Your task to perform on an android device: delete a single message in the gmail app Image 0: 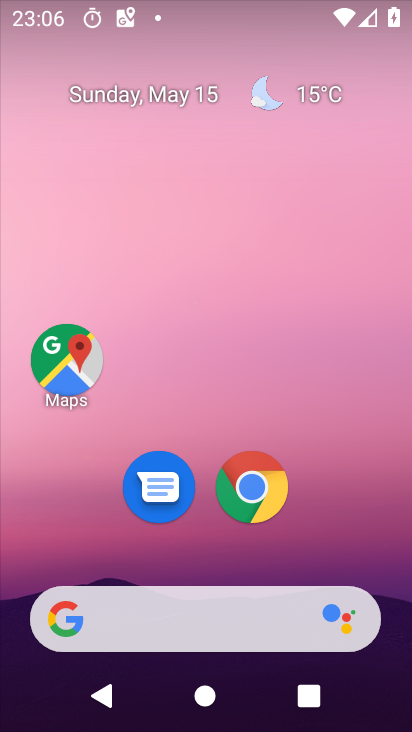
Step 0: click (249, 480)
Your task to perform on an android device: delete a single message in the gmail app Image 1: 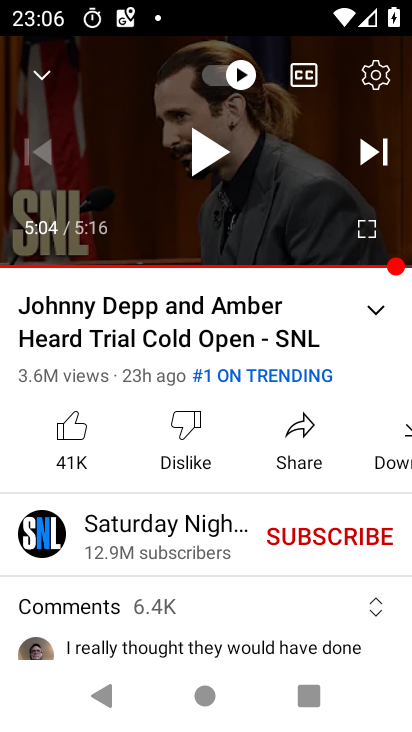
Step 1: press back button
Your task to perform on an android device: delete a single message in the gmail app Image 2: 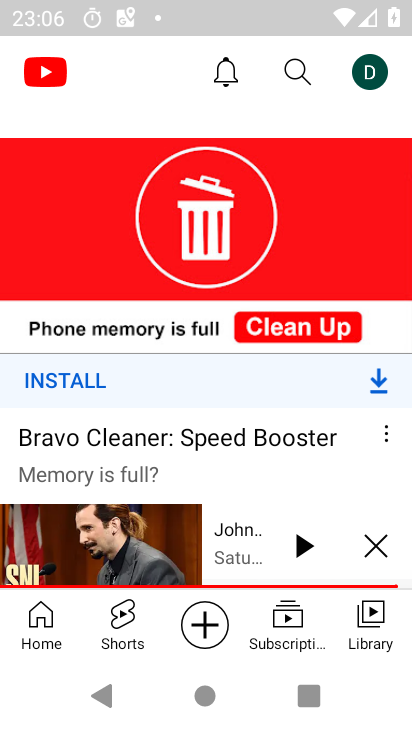
Step 2: click (375, 544)
Your task to perform on an android device: delete a single message in the gmail app Image 3: 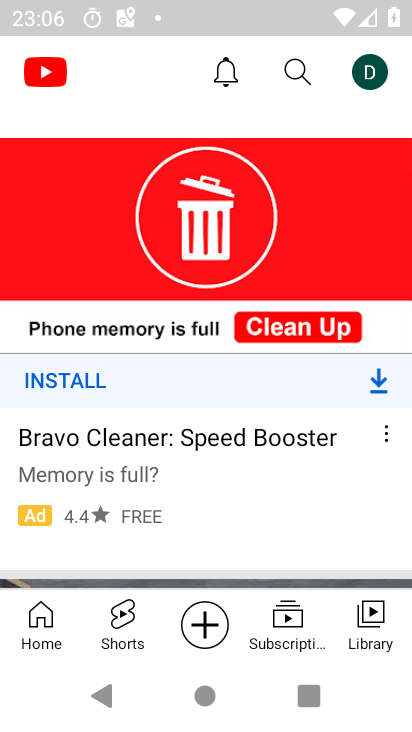
Step 3: press back button
Your task to perform on an android device: delete a single message in the gmail app Image 4: 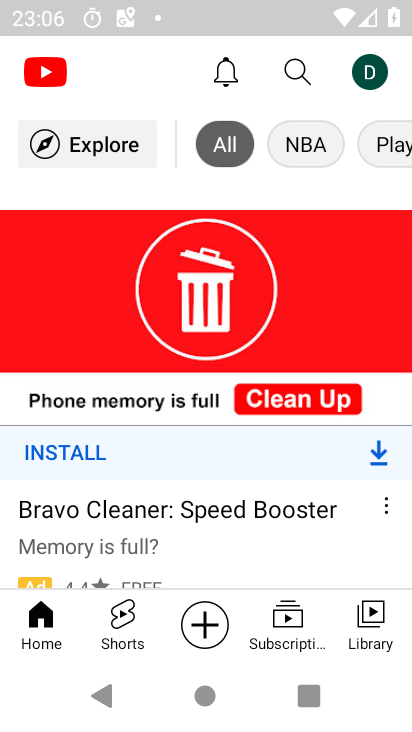
Step 4: press home button
Your task to perform on an android device: delete a single message in the gmail app Image 5: 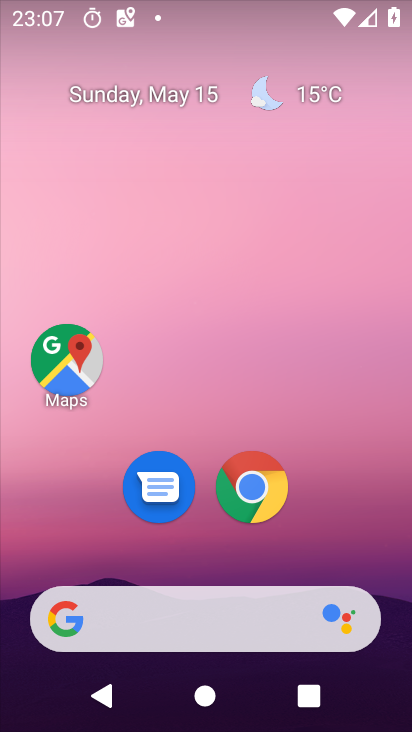
Step 5: click (356, 303)
Your task to perform on an android device: delete a single message in the gmail app Image 6: 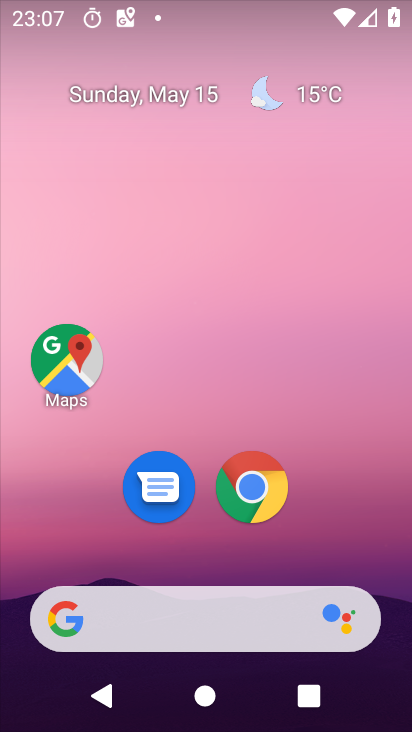
Step 6: drag from (386, 625) to (364, 401)
Your task to perform on an android device: delete a single message in the gmail app Image 7: 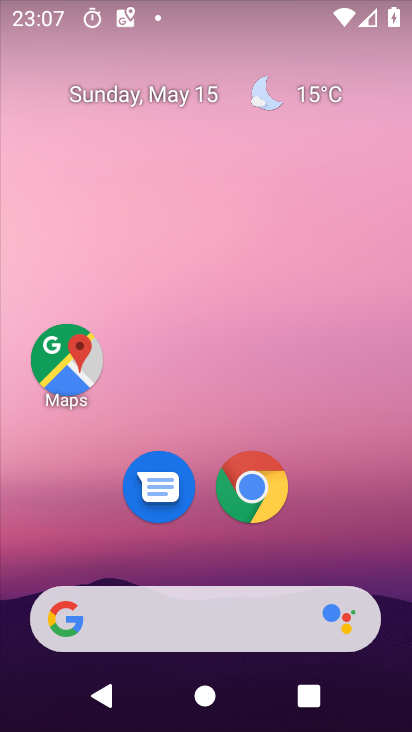
Step 7: drag from (400, 645) to (341, 307)
Your task to perform on an android device: delete a single message in the gmail app Image 8: 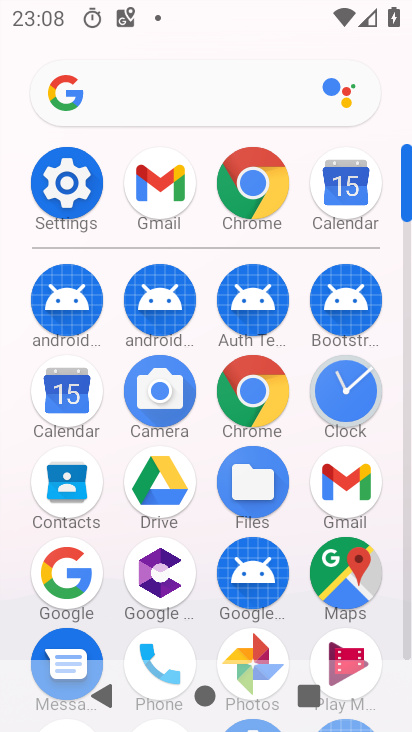
Step 8: click (349, 482)
Your task to perform on an android device: delete a single message in the gmail app Image 9: 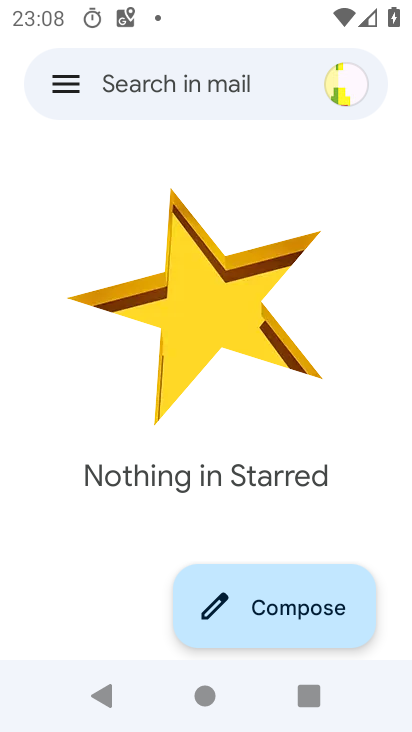
Step 9: click (60, 74)
Your task to perform on an android device: delete a single message in the gmail app Image 10: 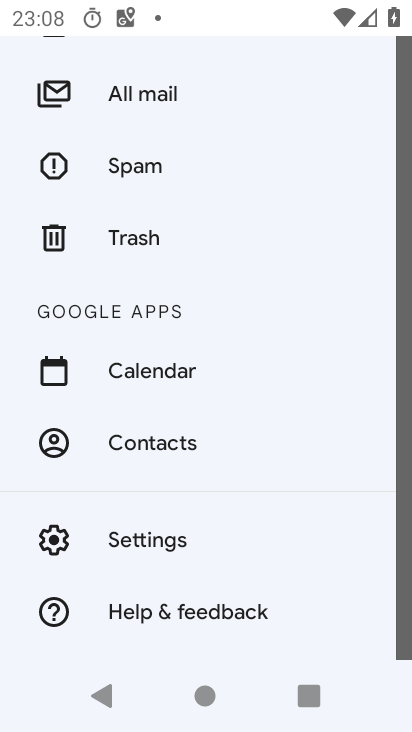
Step 10: drag from (303, 149) to (341, 453)
Your task to perform on an android device: delete a single message in the gmail app Image 11: 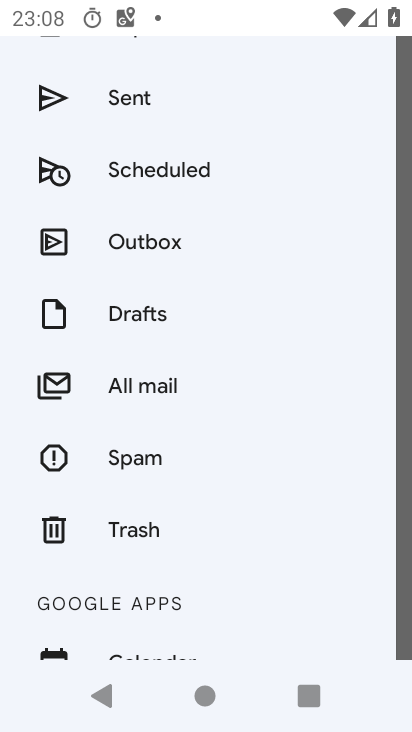
Step 11: drag from (323, 220) to (347, 348)
Your task to perform on an android device: delete a single message in the gmail app Image 12: 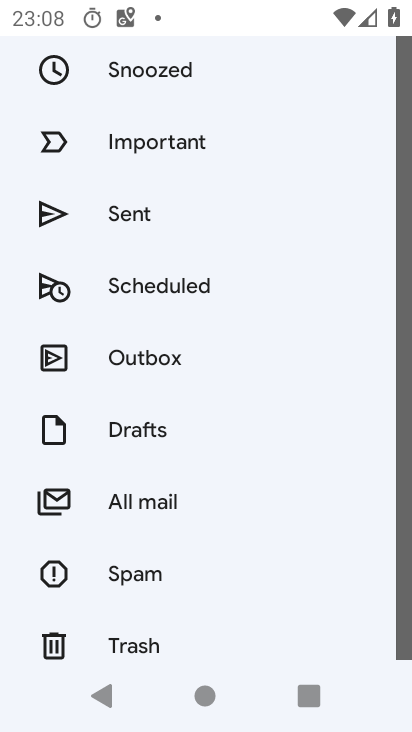
Step 12: drag from (295, 101) to (305, 409)
Your task to perform on an android device: delete a single message in the gmail app Image 13: 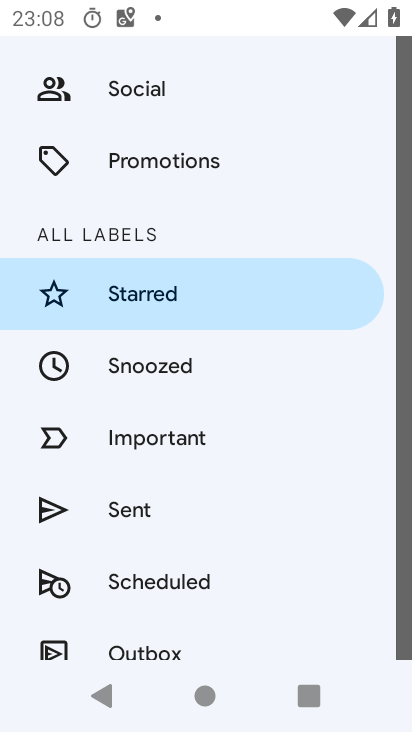
Step 13: drag from (296, 183) to (305, 450)
Your task to perform on an android device: delete a single message in the gmail app Image 14: 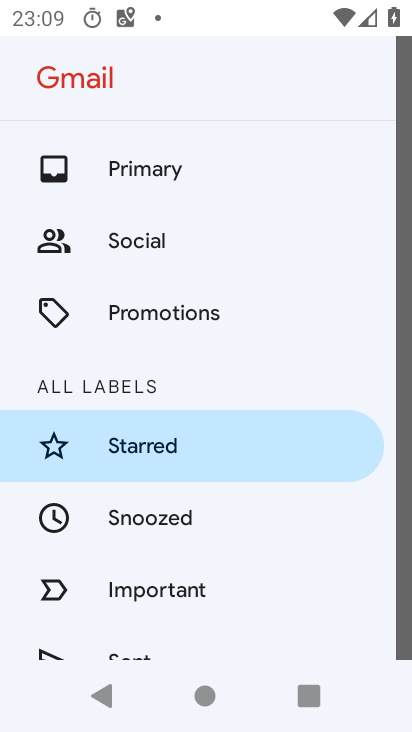
Step 14: click (108, 161)
Your task to perform on an android device: delete a single message in the gmail app Image 15: 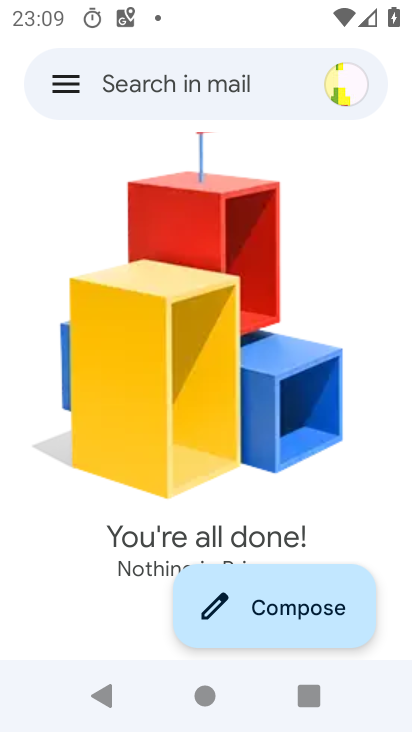
Step 15: click (67, 80)
Your task to perform on an android device: delete a single message in the gmail app Image 16: 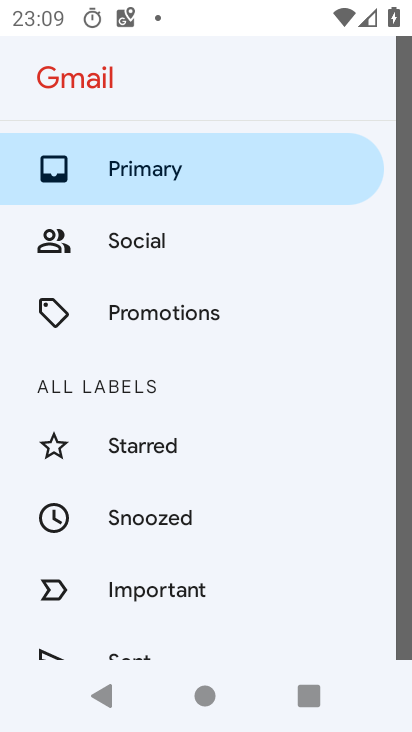
Step 16: click (128, 165)
Your task to perform on an android device: delete a single message in the gmail app Image 17: 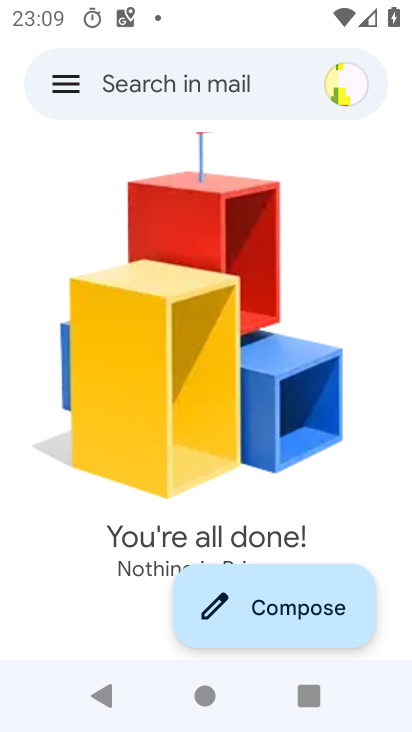
Step 17: task complete